Your task to perform on an android device: check the backup settings in the google photos Image 0: 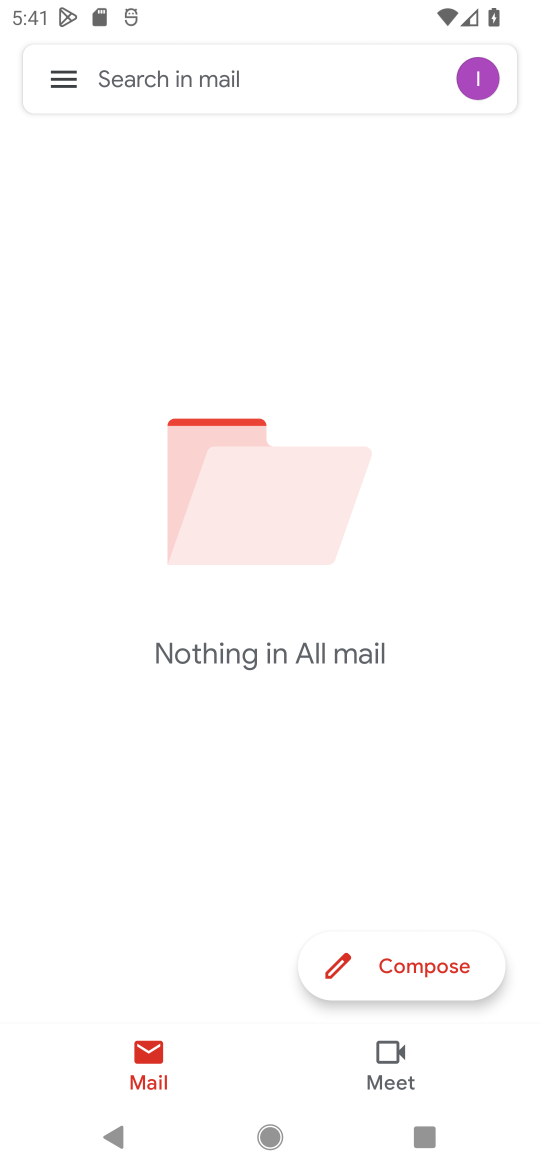
Step 0: press home button
Your task to perform on an android device: check the backup settings in the google photos Image 1: 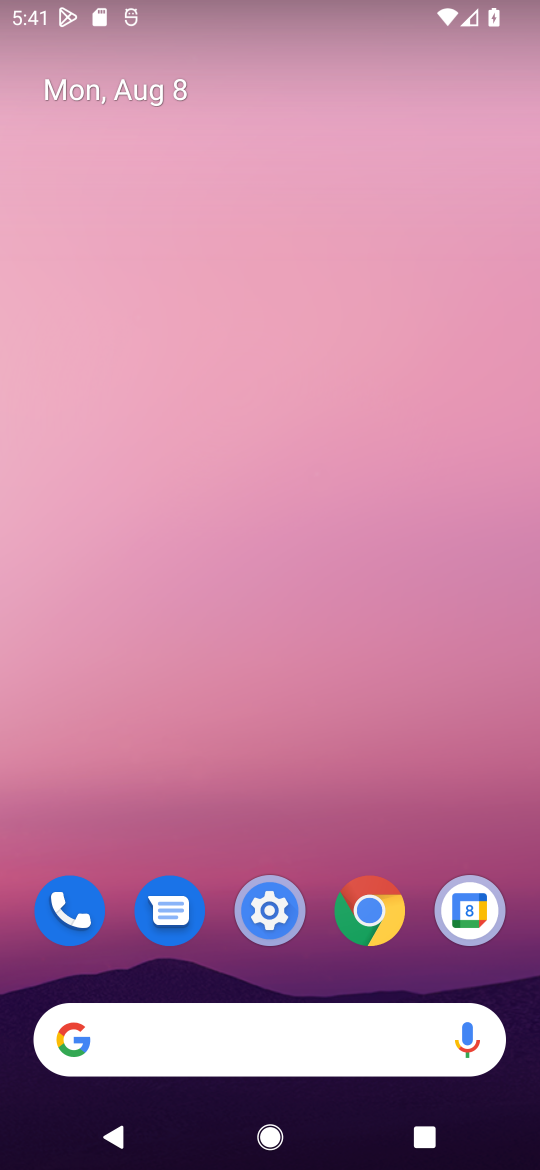
Step 1: drag from (313, 851) to (431, 304)
Your task to perform on an android device: check the backup settings in the google photos Image 2: 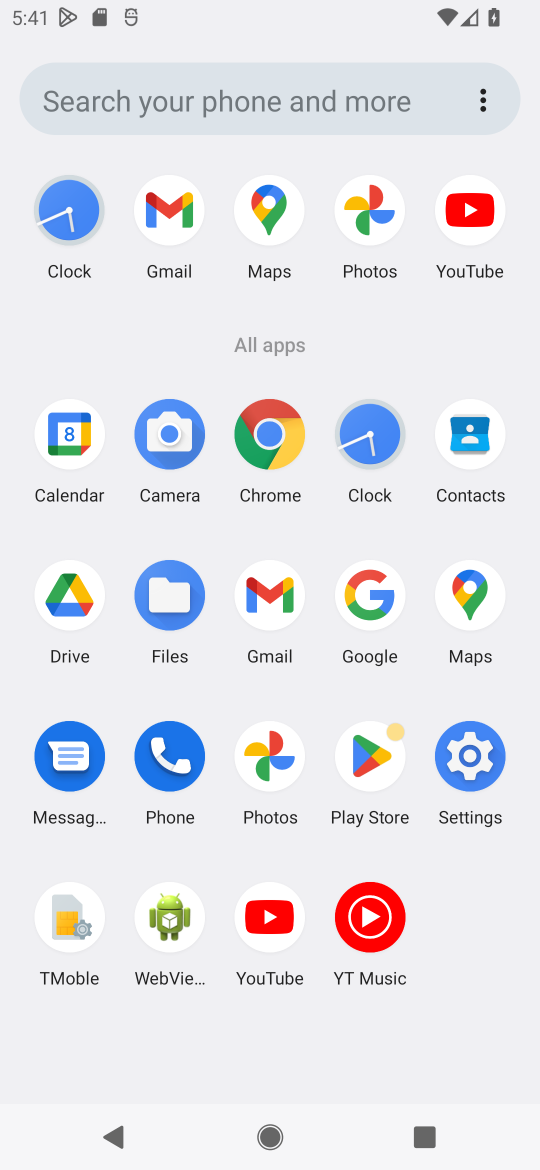
Step 2: click (378, 227)
Your task to perform on an android device: check the backup settings in the google photos Image 3: 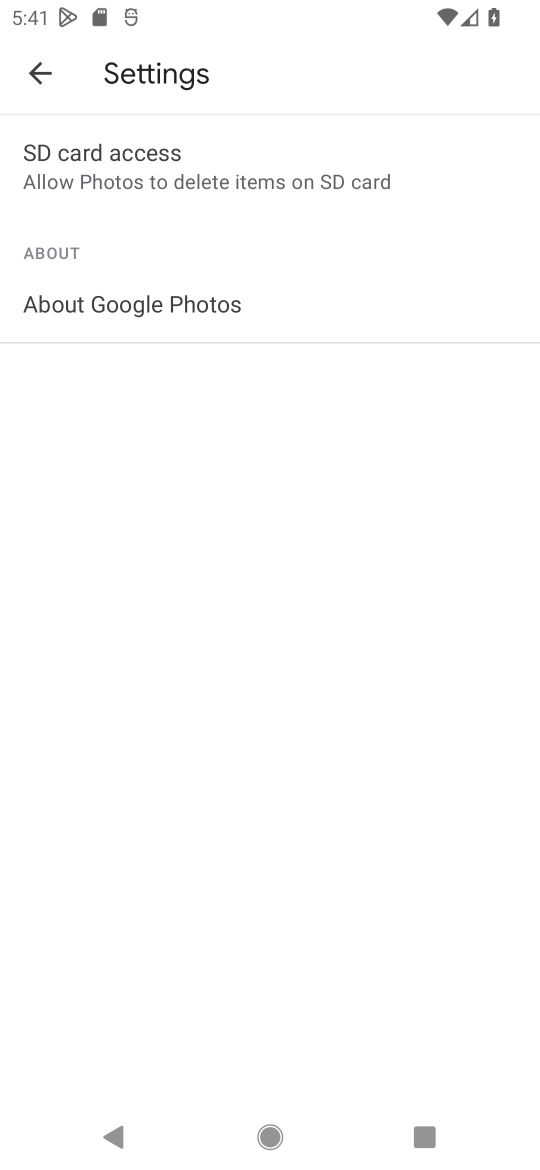
Step 3: click (95, 165)
Your task to perform on an android device: check the backup settings in the google photos Image 4: 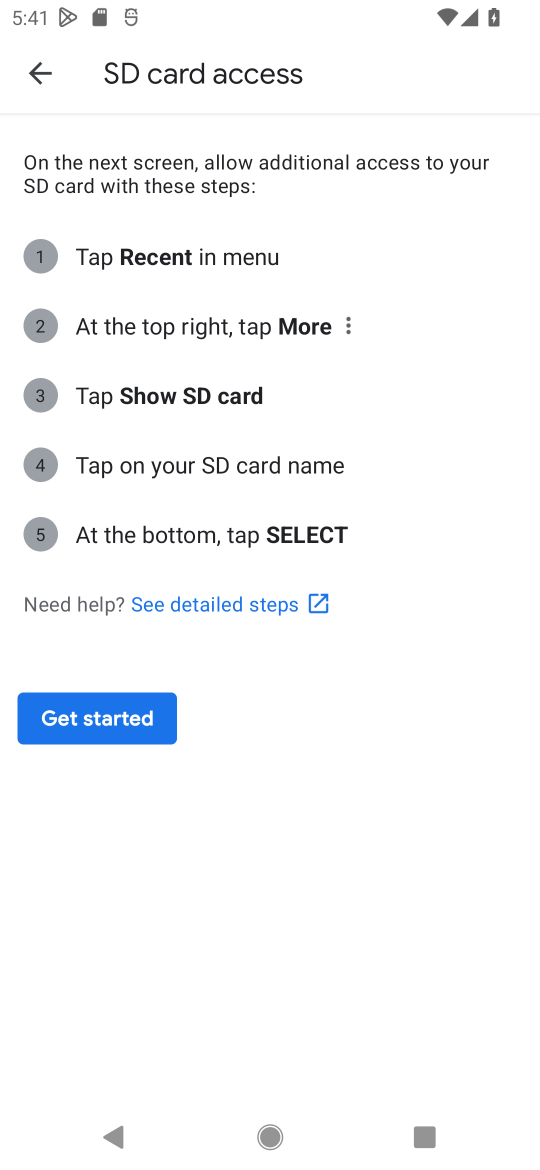
Step 4: click (121, 728)
Your task to perform on an android device: check the backup settings in the google photos Image 5: 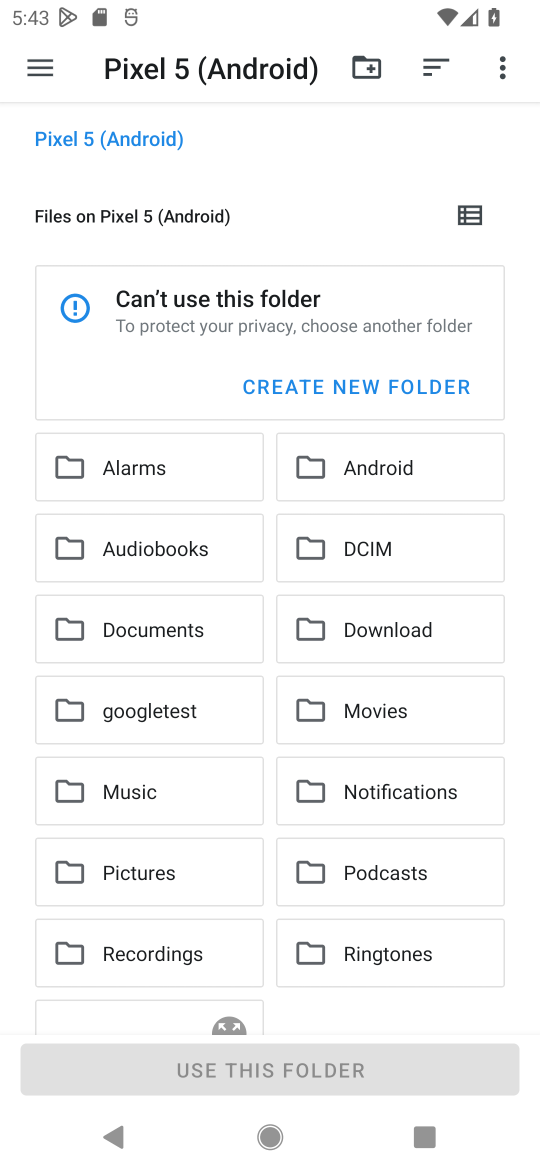
Step 5: task complete